Your task to perform on an android device: turn on sleep mode Image 0: 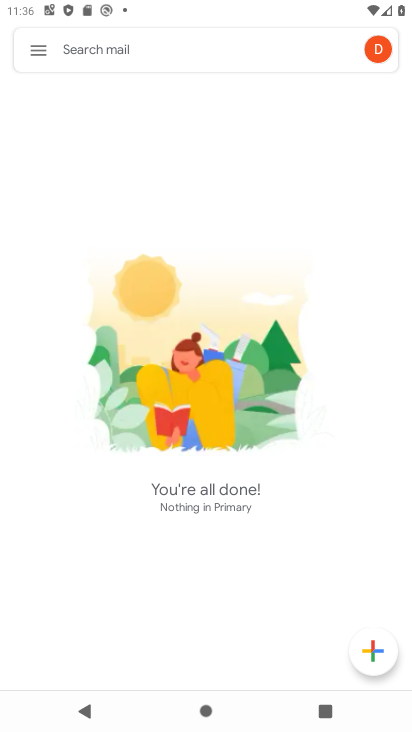
Step 0: press back button
Your task to perform on an android device: turn on sleep mode Image 1: 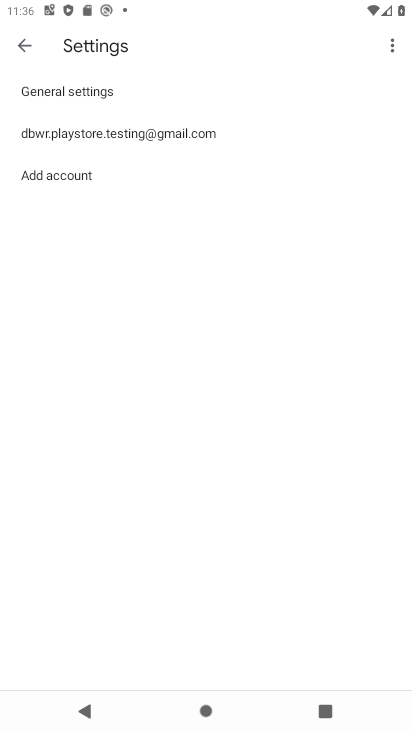
Step 1: press home button
Your task to perform on an android device: turn on sleep mode Image 2: 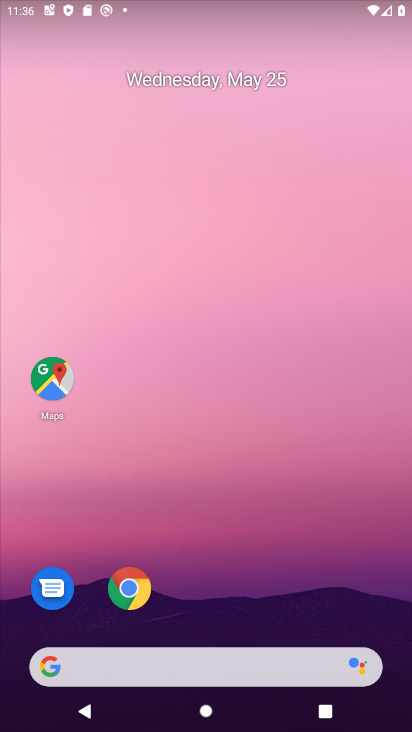
Step 2: drag from (241, 584) to (237, 19)
Your task to perform on an android device: turn on sleep mode Image 3: 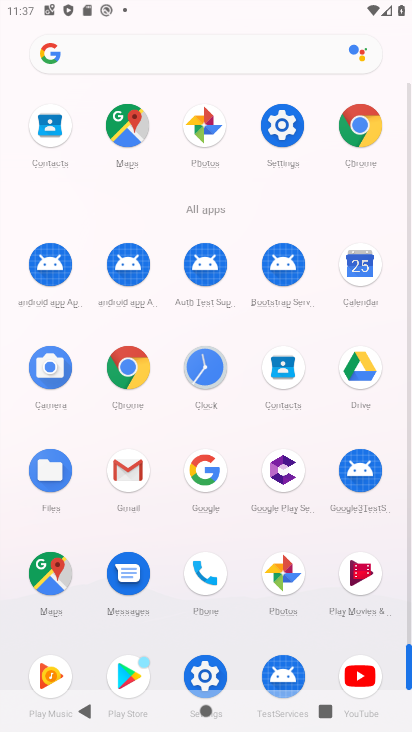
Step 3: drag from (11, 635) to (11, 384)
Your task to perform on an android device: turn on sleep mode Image 4: 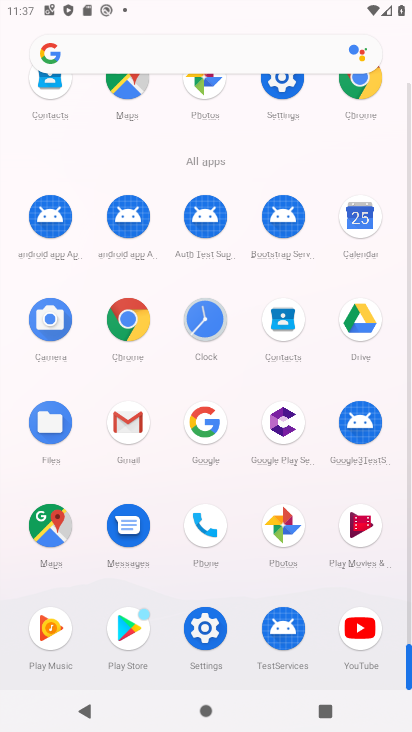
Step 4: click (203, 628)
Your task to perform on an android device: turn on sleep mode Image 5: 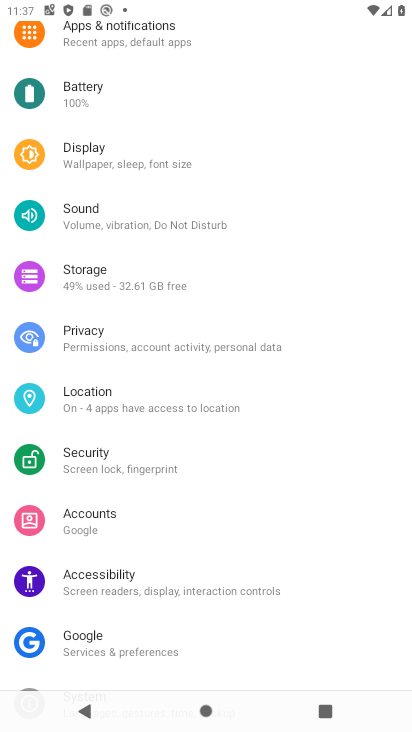
Step 5: drag from (231, 85) to (221, 554)
Your task to perform on an android device: turn on sleep mode Image 6: 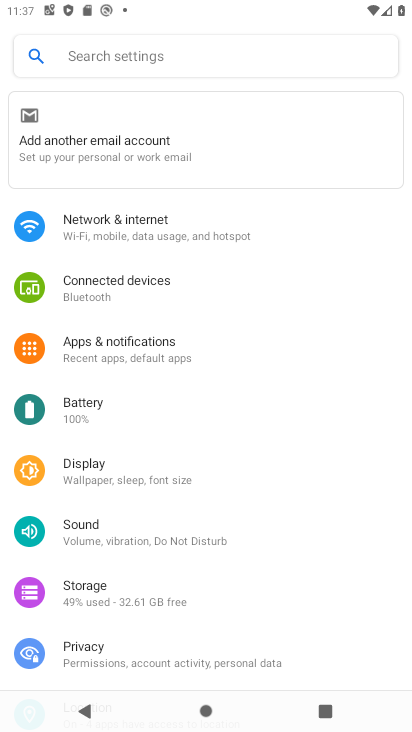
Step 6: click (193, 226)
Your task to perform on an android device: turn on sleep mode Image 7: 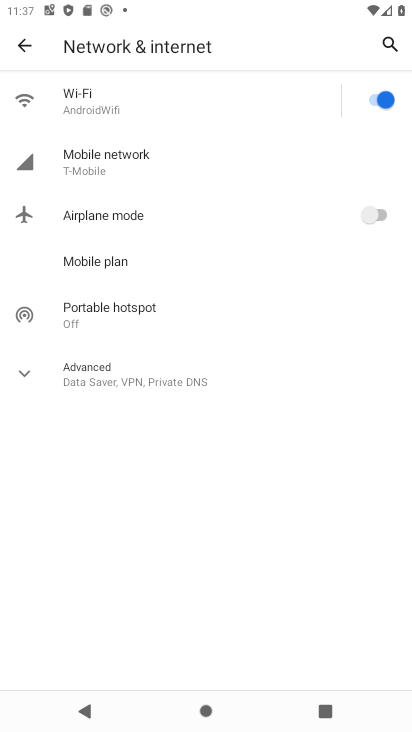
Step 7: click (42, 363)
Your task to perform on an android device: turn on sleep mode Image 8: 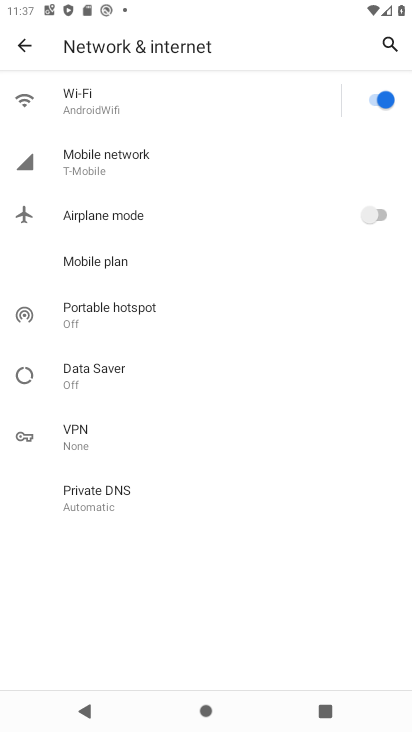
Step 8: task complete